Your task to perform on an android device: turn on priority inbox in the gmail app Image 0: 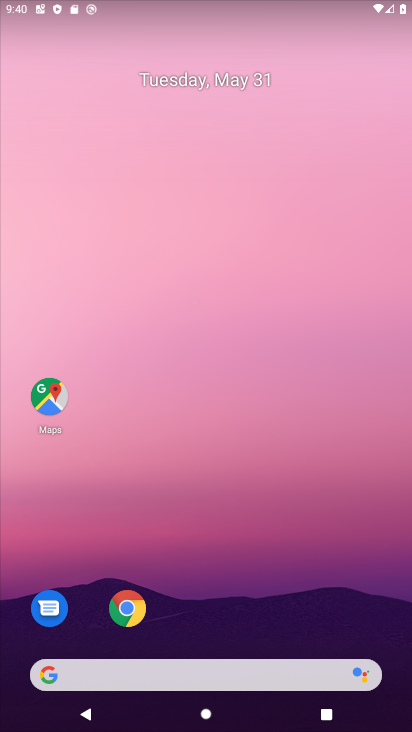
Step 0: task complete